Your task to perform on an android device: change keyboard looks Image 0: 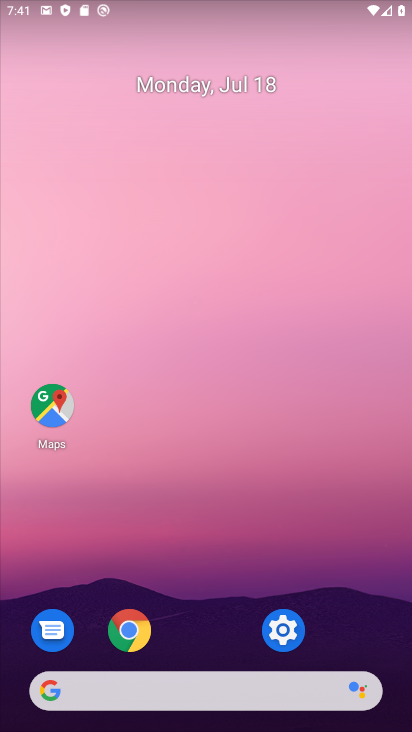
Step 0: click (280, 635)
Your task to perform on an android device: change keyboard looks Image 1: 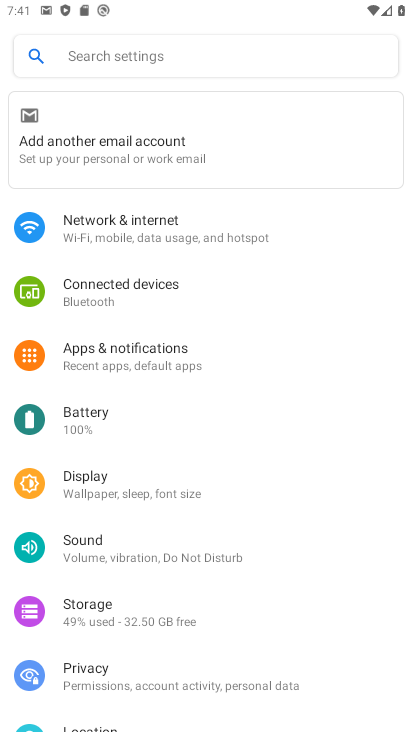
Step 1: click (138, 62)
Your task to perform on an android device: change keyboard looks Image 2: 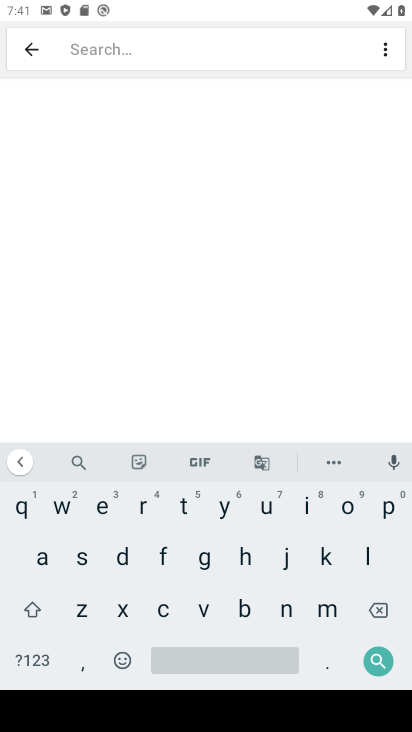
Step 2: click (321, 558)
Your task to perform on an android device: change keyboard looks Image 3: 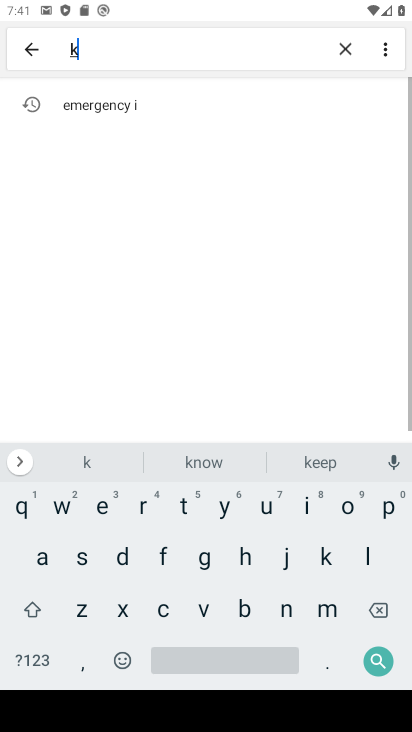
Step 3: click (98, 518)
Your task to perform on an android device: change keyboard looks Image 4: 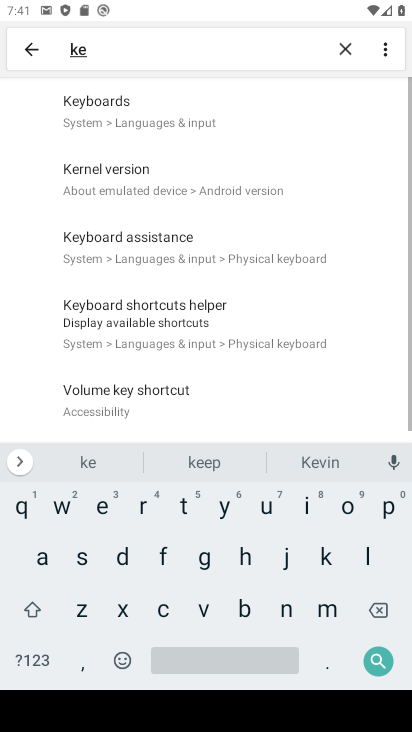
Step 4: click (224, 509)
Your task to perform on an android device: change keyboard looks Image 5: 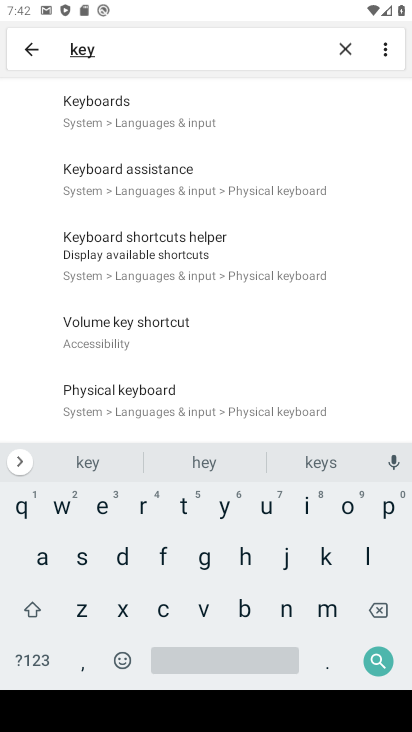
Step 5: click (154, 130)
Your task to perform on an android device: change keyboard looks Image 6: 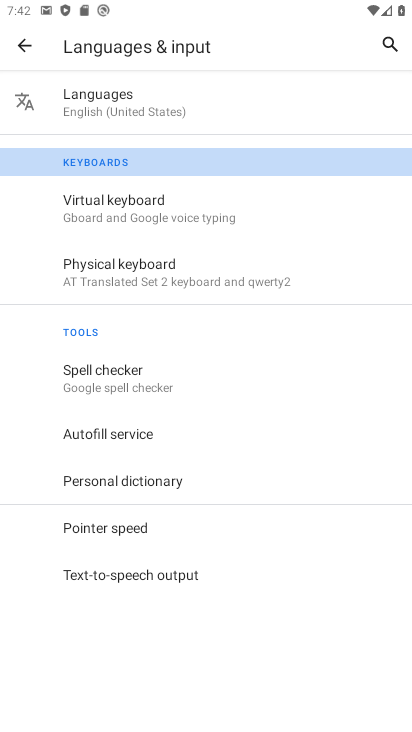
Step 6: click (159, 205)
Your task to perform on an android device: change keyboard looks Image 7: 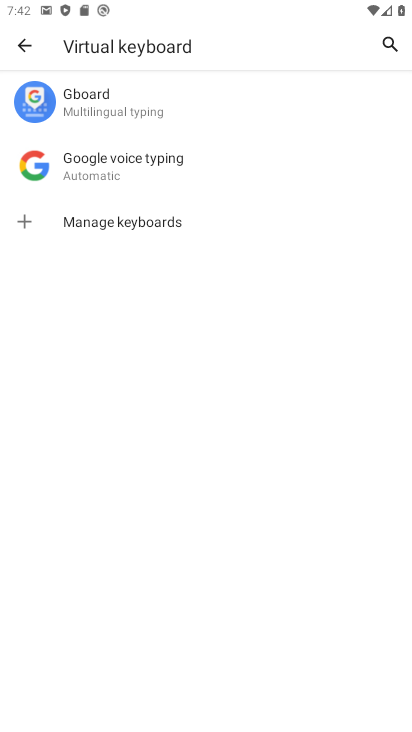
Step 7: click (116, 98)
Your task to perform on an android device: change keyboard looks Image 8: 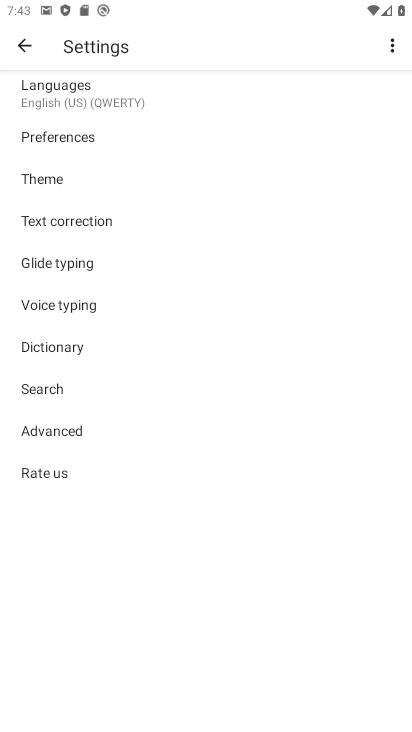
Step 8: click (71, 170)
Your task to perform on an android device: change keyboard looks Image 9: 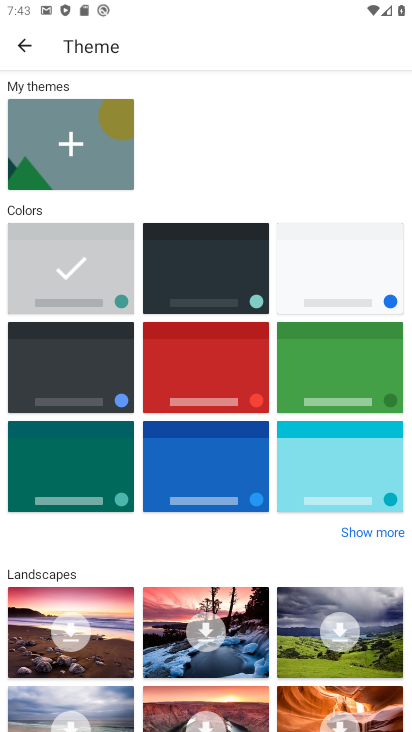
Step 9: click (98, 391)
Your task to perform on an android device: change keyboard looks Image 10: 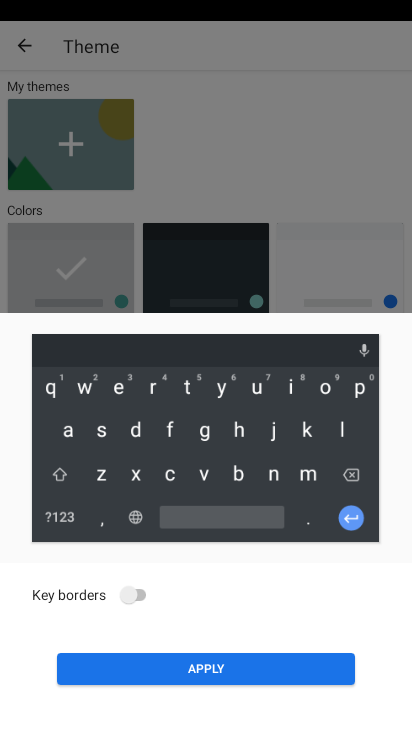
Step 10: click (142, 594)
Your task to perform on an android device: change keyboard looks Image 11: 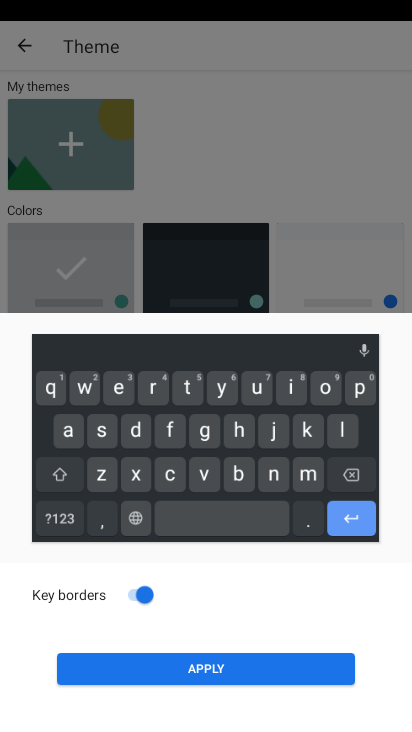
Step 11: click (177, 658)
Your task to perform on an android device: change keyboard looks Image 12: 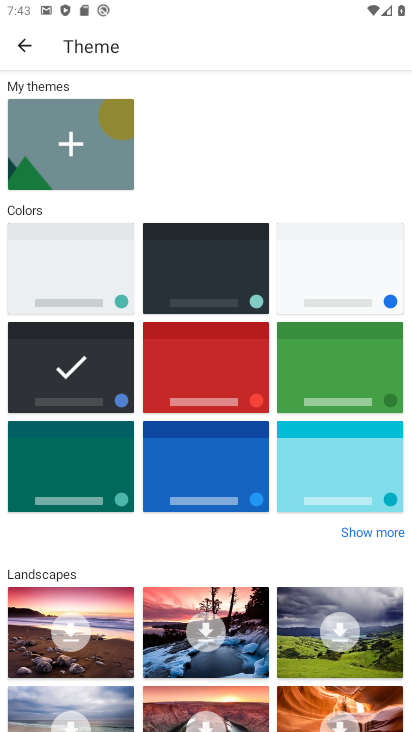
Step 12: task complete